Your task to perform on an android device: Go to Google Image 0: 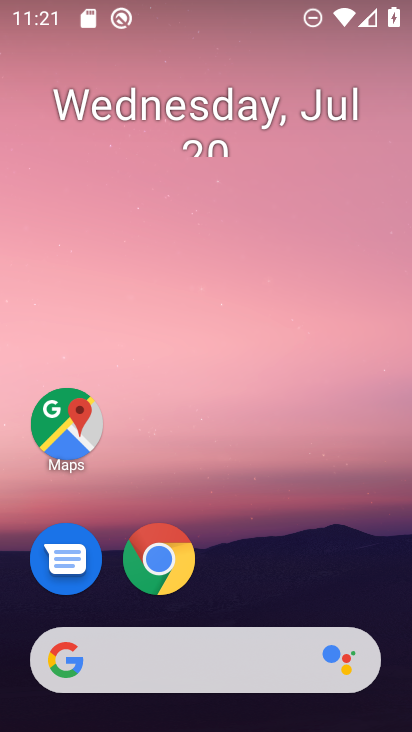
Step 0: drag from (171, 634) to (196, 174)
Your task to perform on an android device: Go to Google Image 1: 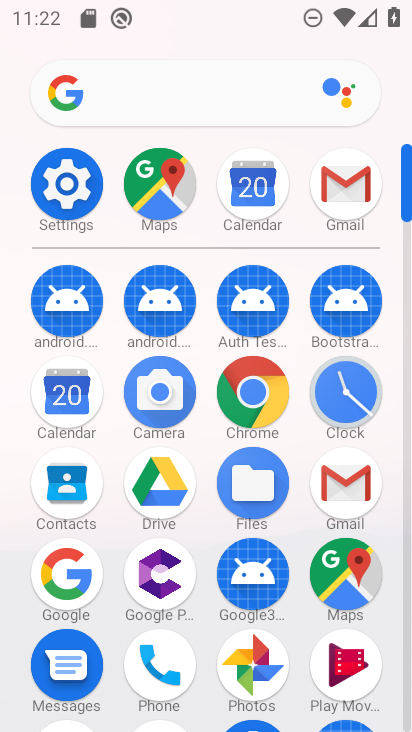
Step 1: drag from (236, 425) to (294, 234)
Your task to perform on an android device: Go to Google Image 2: 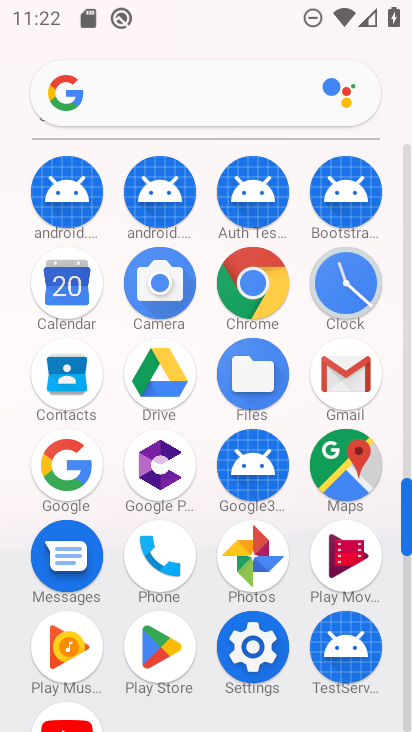
Step 2: click (69, 478)
Your task to perform on an android device: Go to Google Image 3: 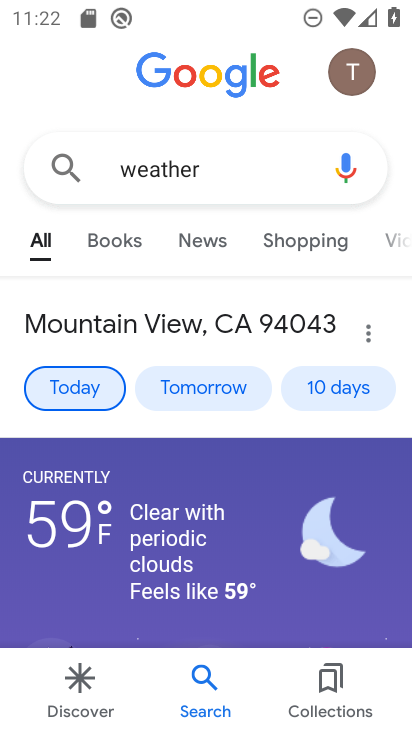
Step 3: task complete